Your task to perform on an android device: add a contact Image 0: 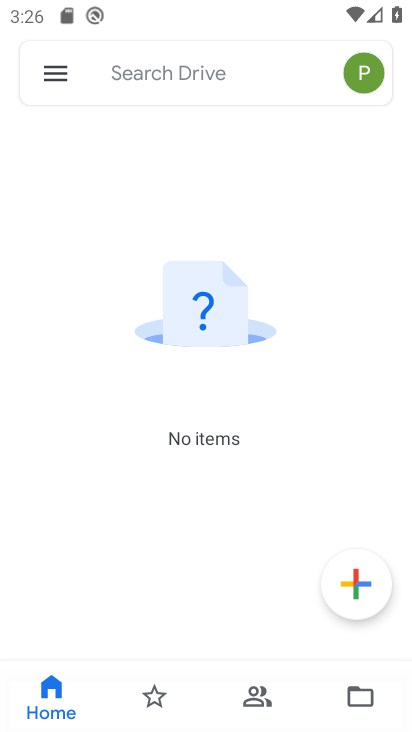
Step 0: press home button
Your task to perform on an android device: add a contact Image 1: 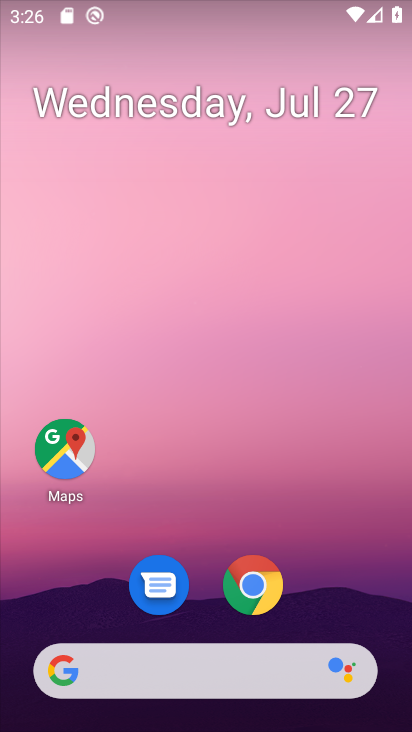
Step 1: drag from (331, 536) to (333, 41)
Your task to perform on an android device: add a contact Image 2: 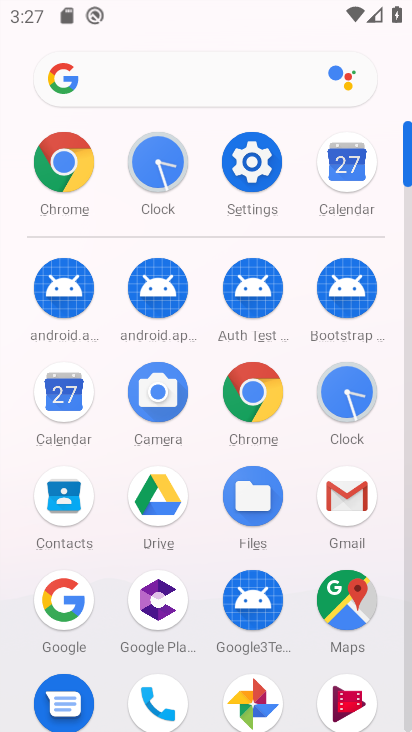
Step 2: click (72, 491)
Your task to perform on an android device: add a contact Image 3: 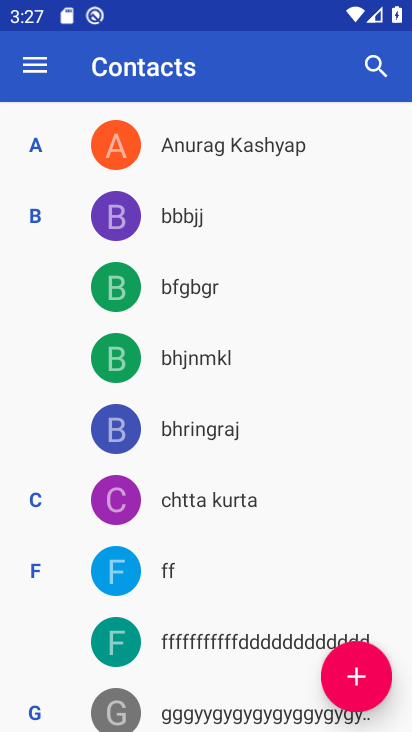
Step 3: click (361, 680)
Your task to perform on an android device: add a contact Image 4: 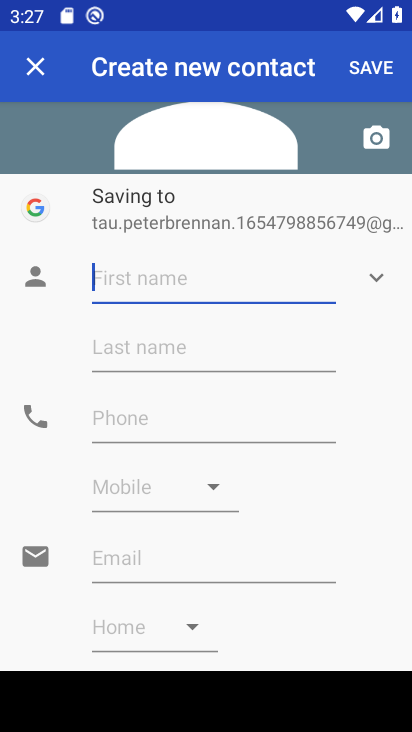
Step 4: type "Abha"
Your task to perform on an android device: add a contact Image 5: 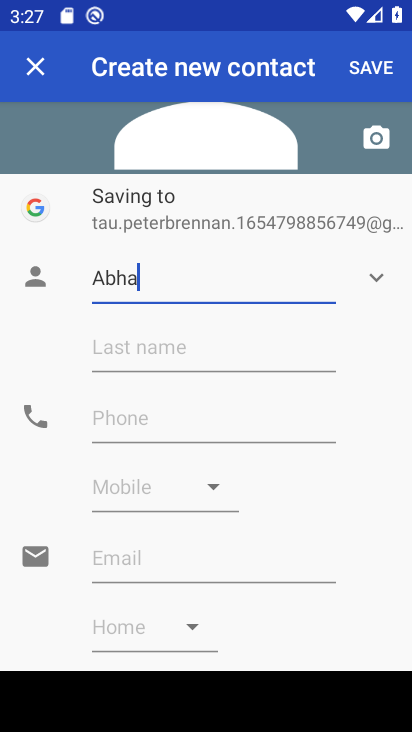
Step 5: click (208, 425)
Your task to perform on an android device: add a contact Image 6: 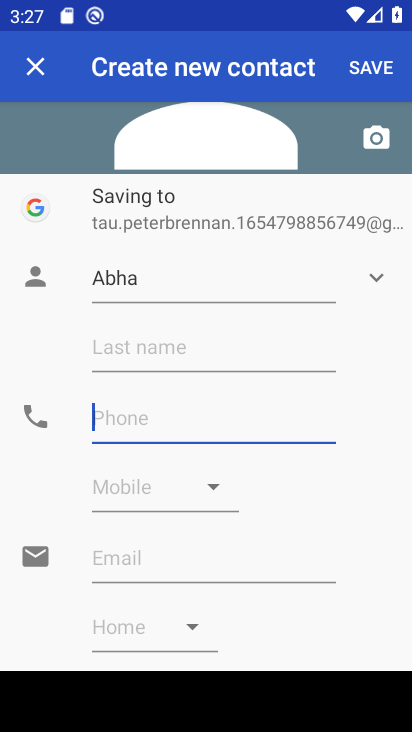
Step 6: type "+919999000009"
Your task to perform on an android device: add a contact Image 7: 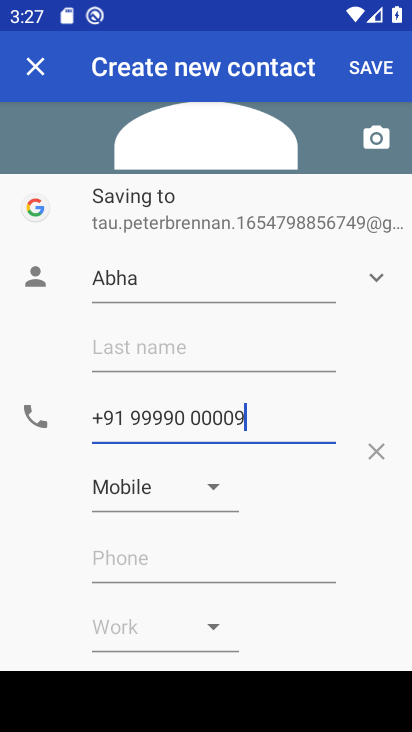
Step 7: click (369, 68)
Your task to perform on an android device: add a contact Image 8: 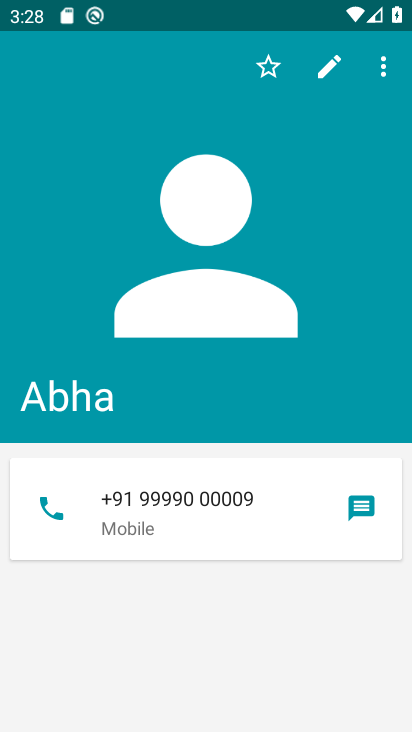
Step 8: task complete